Your task to perform on an android device: toggle wifi Image 0: 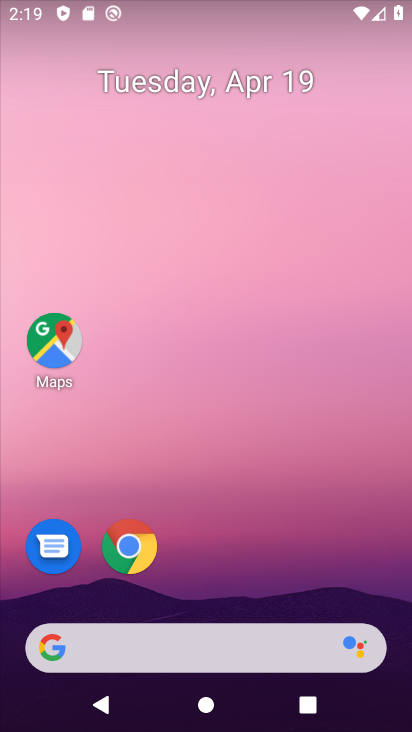
Step 0: drag from (220, 523) to (224, 233)
Your task to perform on an android device: toggle wifi Image 1: 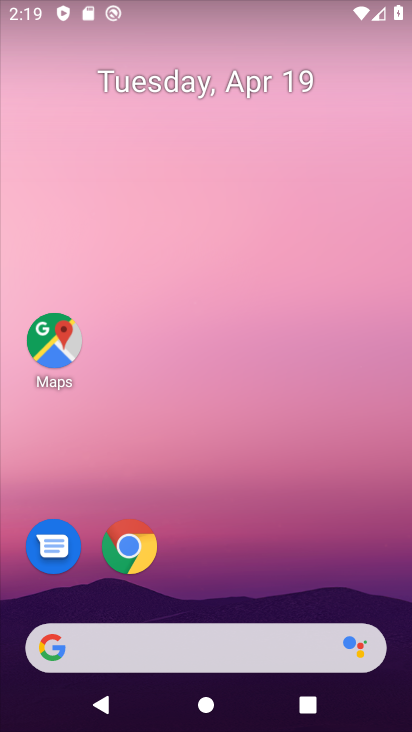
Step 1: drag from (194, 614) to (245, 98)
Your task to perform on an android device: toggle wifi Image 2: 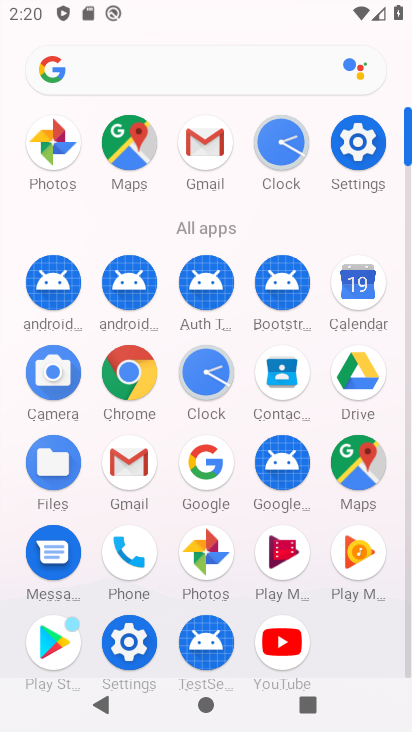
Step 2: click (358, 137)
Your task to perform on an android device: toggle wifi Image 3: 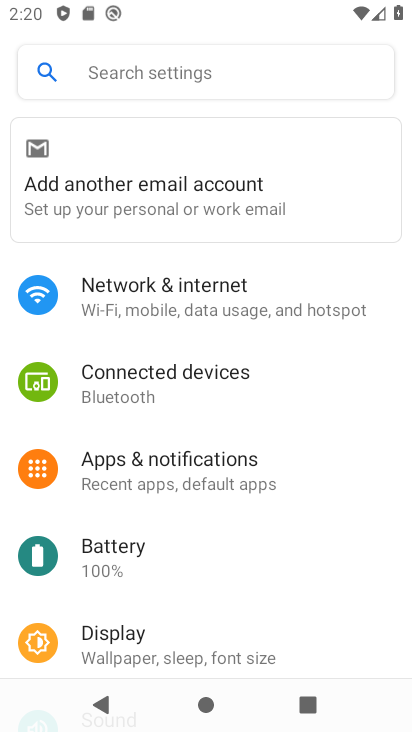
Step 3: click (263, 290)
Your task to perform on an android device: toggle wifi Image 4: 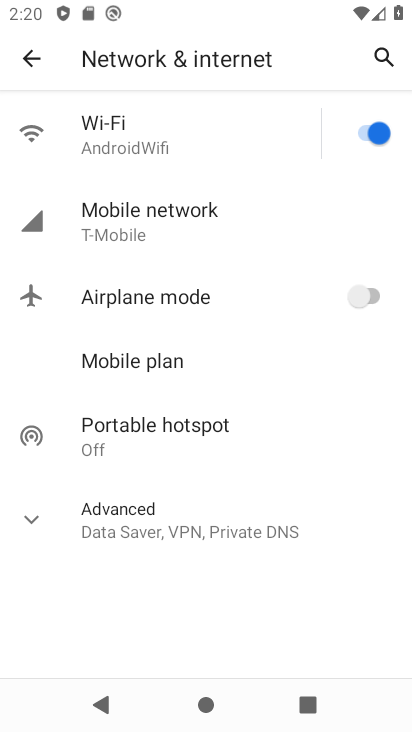
Step 4: click (362, 125)
Your task to perform on an android device: toggle wifi Image 5: 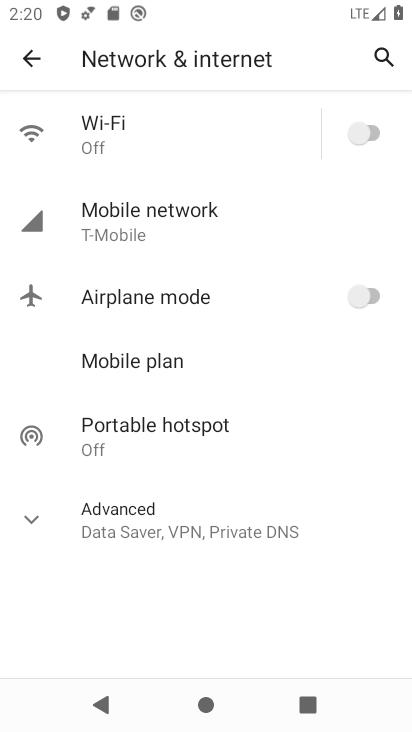
Step 5: task complete